Your task to perform on an android device: Open Chrome and go to settings Image 0: 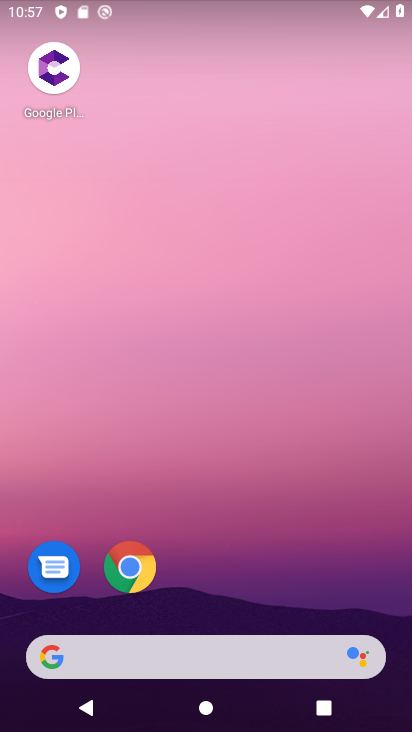
Step 0: click (128, 591)
Your task to perform on an android device: Open Chrome and go to settings Image 1: 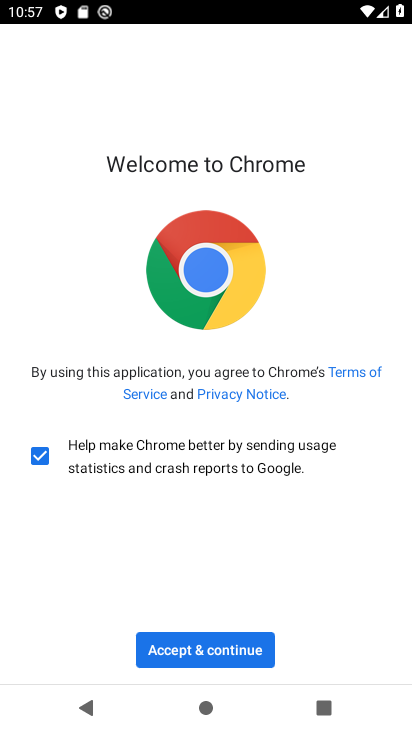
Step 1: click (176, 641)
Your task to perform on an android device: Open Chrome and go to settings Image 2: 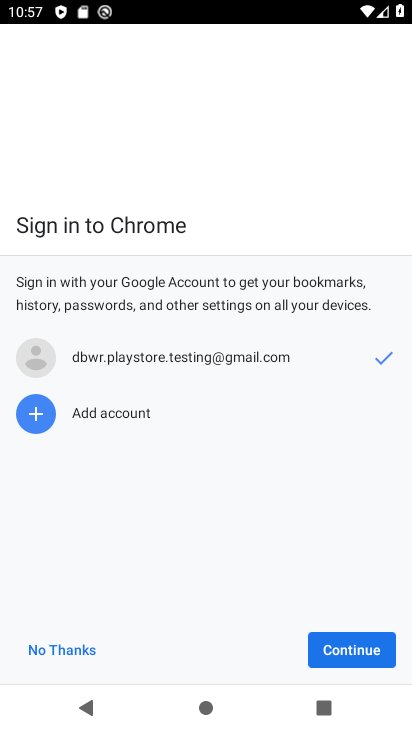
Step 2: click (340, 640)
Your task to perform on an android device: Open Chrome and go to settings Image 3: 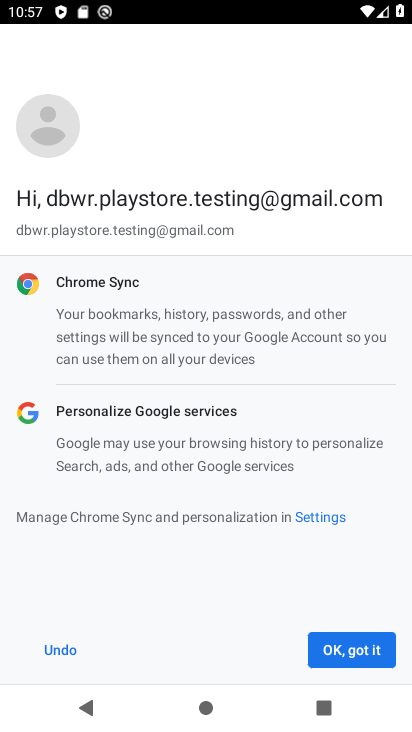
Step 3: click (340, 641)
Your task to perform on an android device: Open Chrome and go to settings Image 4: 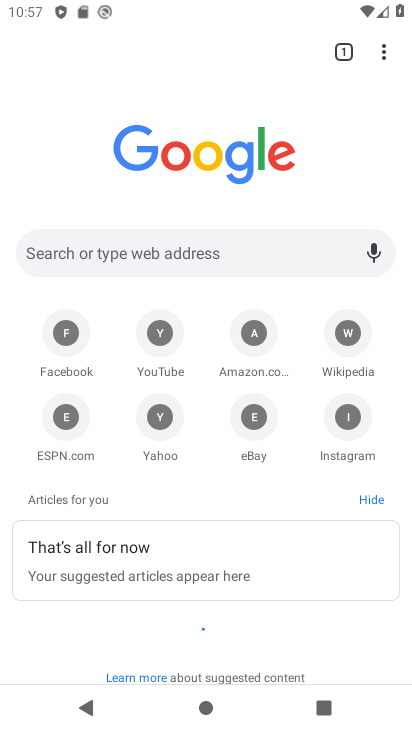
Step 4: click (388, 57)
Your task to perform on an android device: Open Chrome and go to settings Image 5: 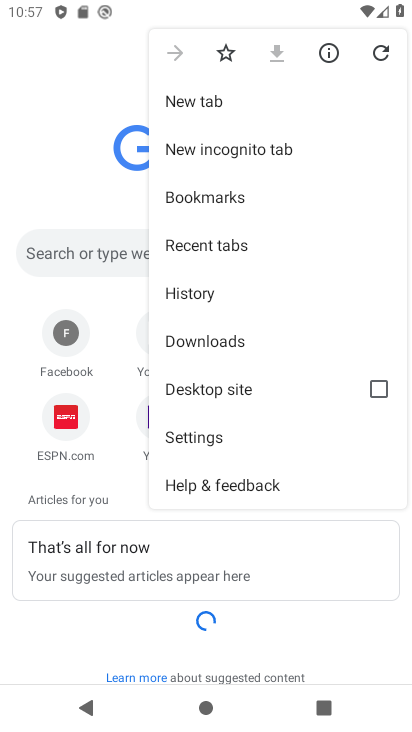
Step 5: click (376, 51)
Your task to perform on an android device: Open Chrome and go to settings Image 6: 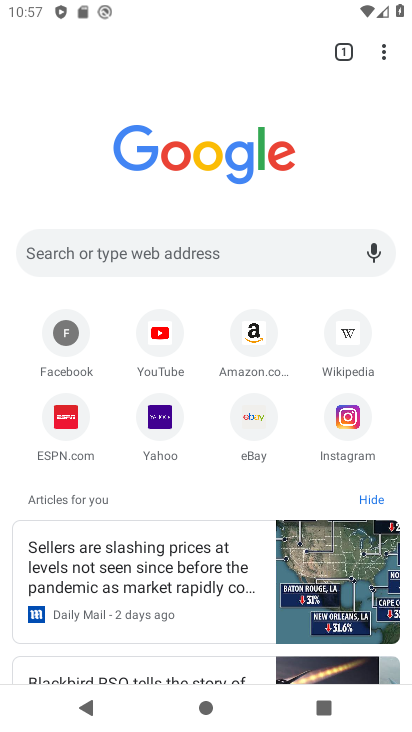
Step 6: click (376, 51)
Your task to perform on an android device: Open Chrome and go to settings Image 7: 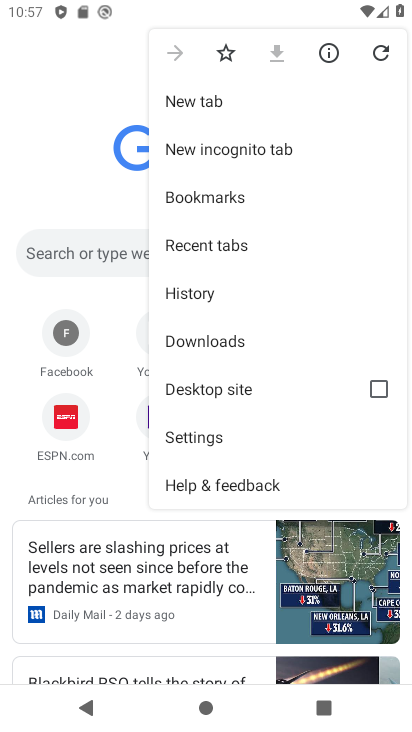
Step 7: click (208, 426)
Your task to perform on an android device: Open Chrome and go to settings Image 8: 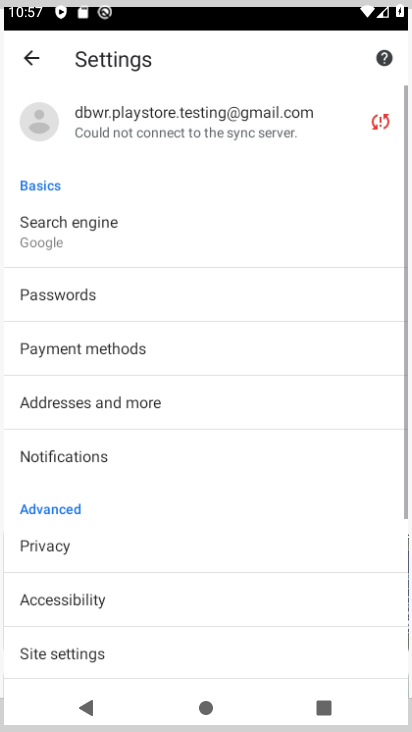
Step 8: task complete